Your task to perform on an android device: Search for seafood restaurants on Google Maps Image 0: 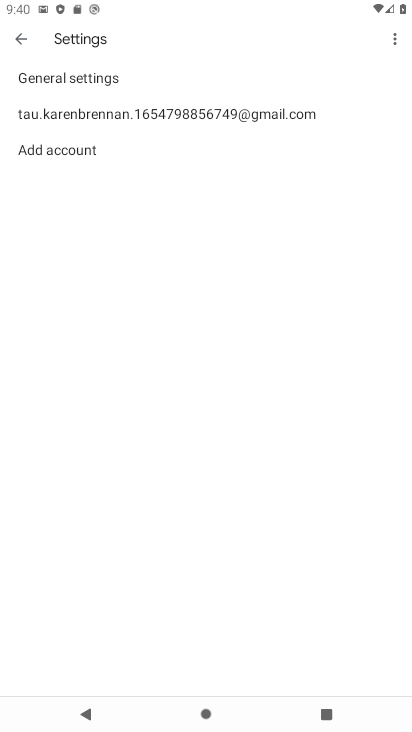
Step 0: press home button
Your task to perform on an android device: Search for seafood restaurants on Google Maps Image 1: 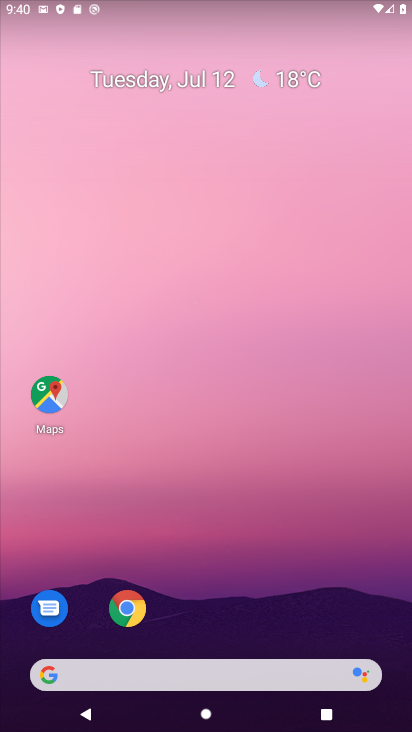
Step 1: click (47, 404)
Your task to perform on an android device: Search for seafood restaurants on Google Maps Image 2: 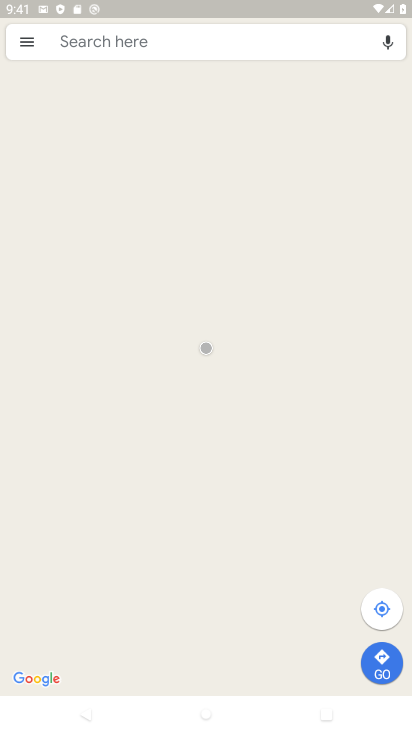
Step 2: click (206, 40)
Your task to perform on an android device: Search for seafood restaurants on Google Maps Image 3: 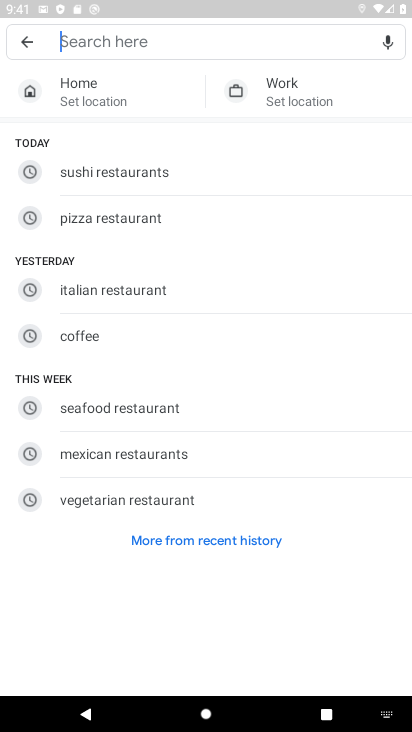
Step 3: type "seafood restaurants"
Your task to perform on an android device: Search for seafood restaurants on Google Maps Image 4: 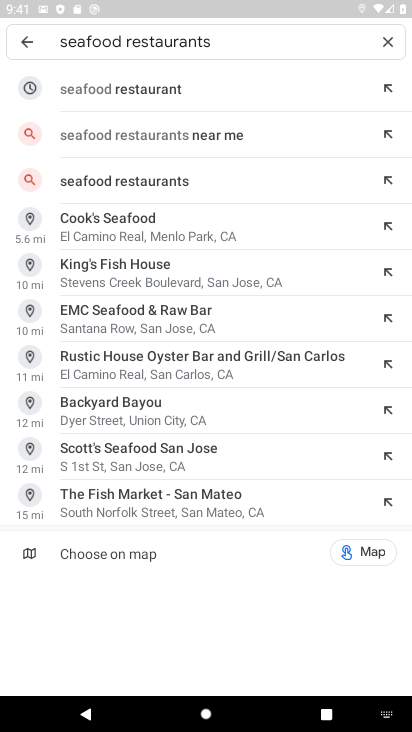
Step 4: click (163, 81)
Your task to perform on an android device: Search for seafood restaurants on Google Maps Image 5: 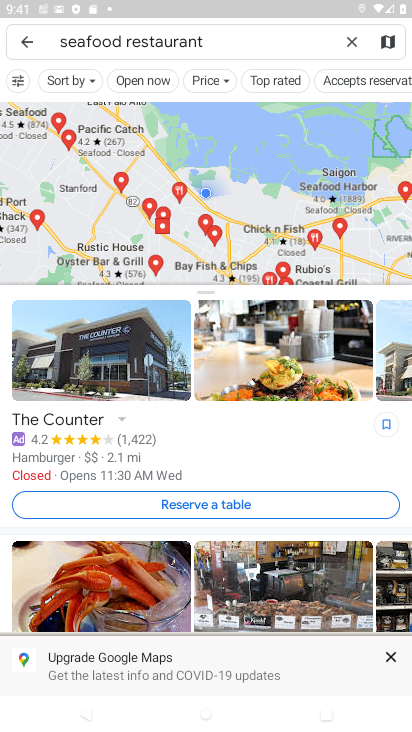
Step 5: task complete